Your task to perform on an android device: Empty the shopping cart on ebay. Add "acer nitro" to the cart on ebay, then select checkout. Image 0: 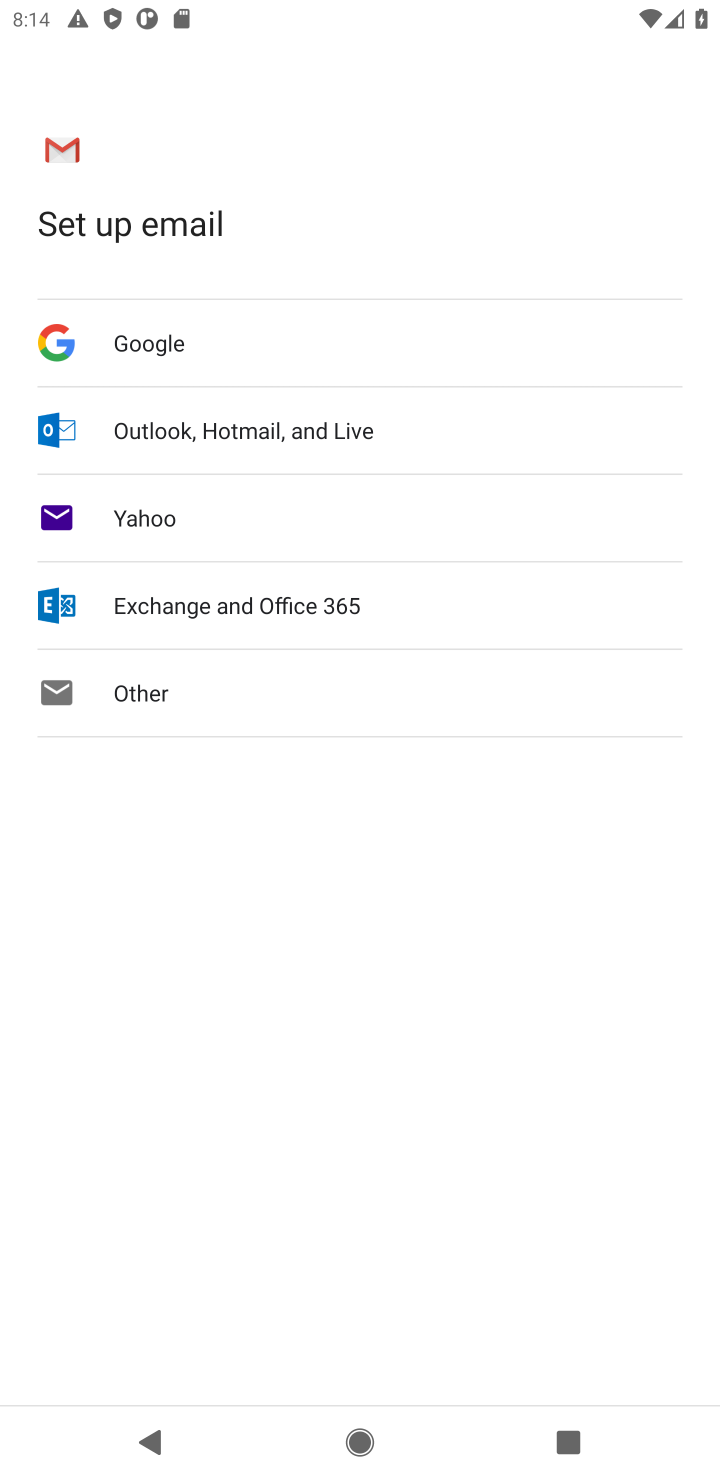
Step 0: press home button
Your task to perform on an android device: Empty the shopping cart on ebay. Add "acer nitro" to the cart on ebay, then select checkout. Image 1: 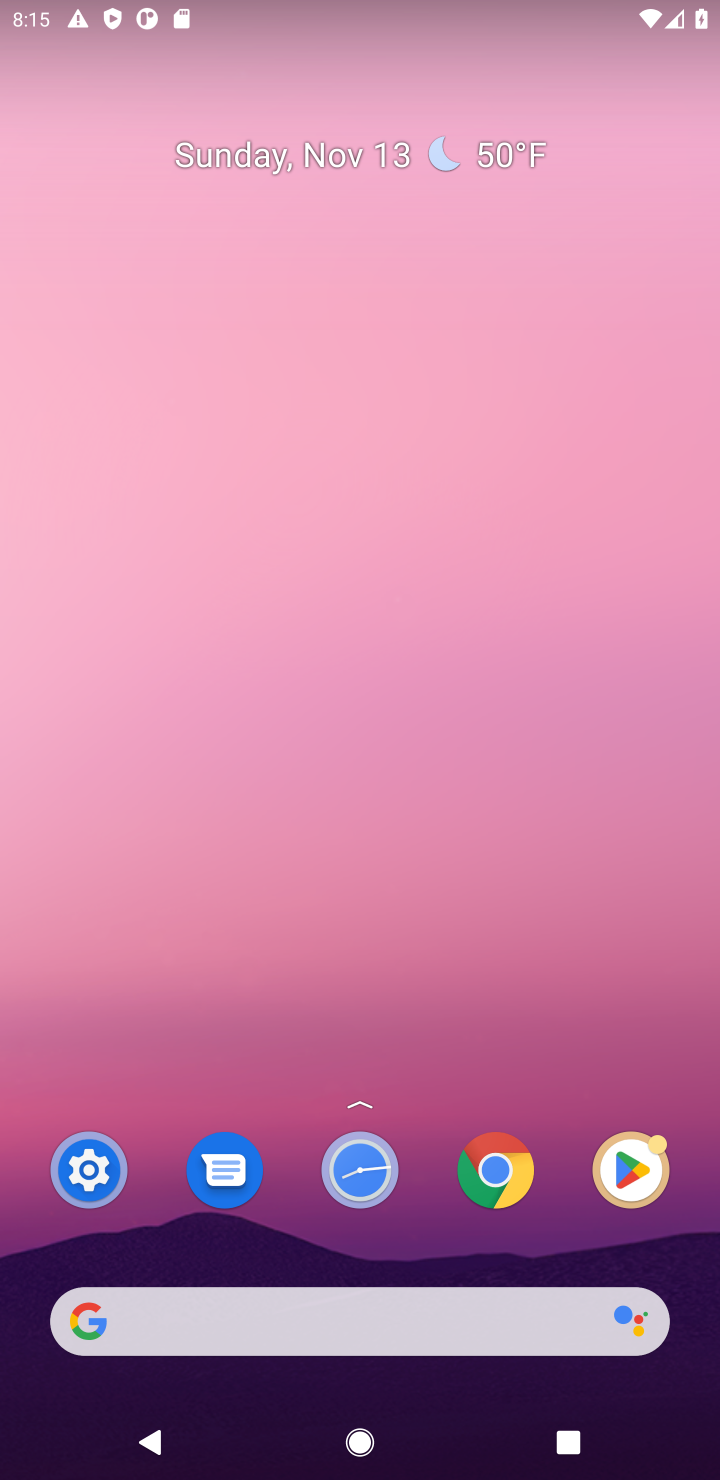
Step 1: click (279, 1341)
Your task to perform on an android device: Empty the shopping cart on ebay. Add "acer nitro" to the cart on ebay, then select checkout. Image 2: 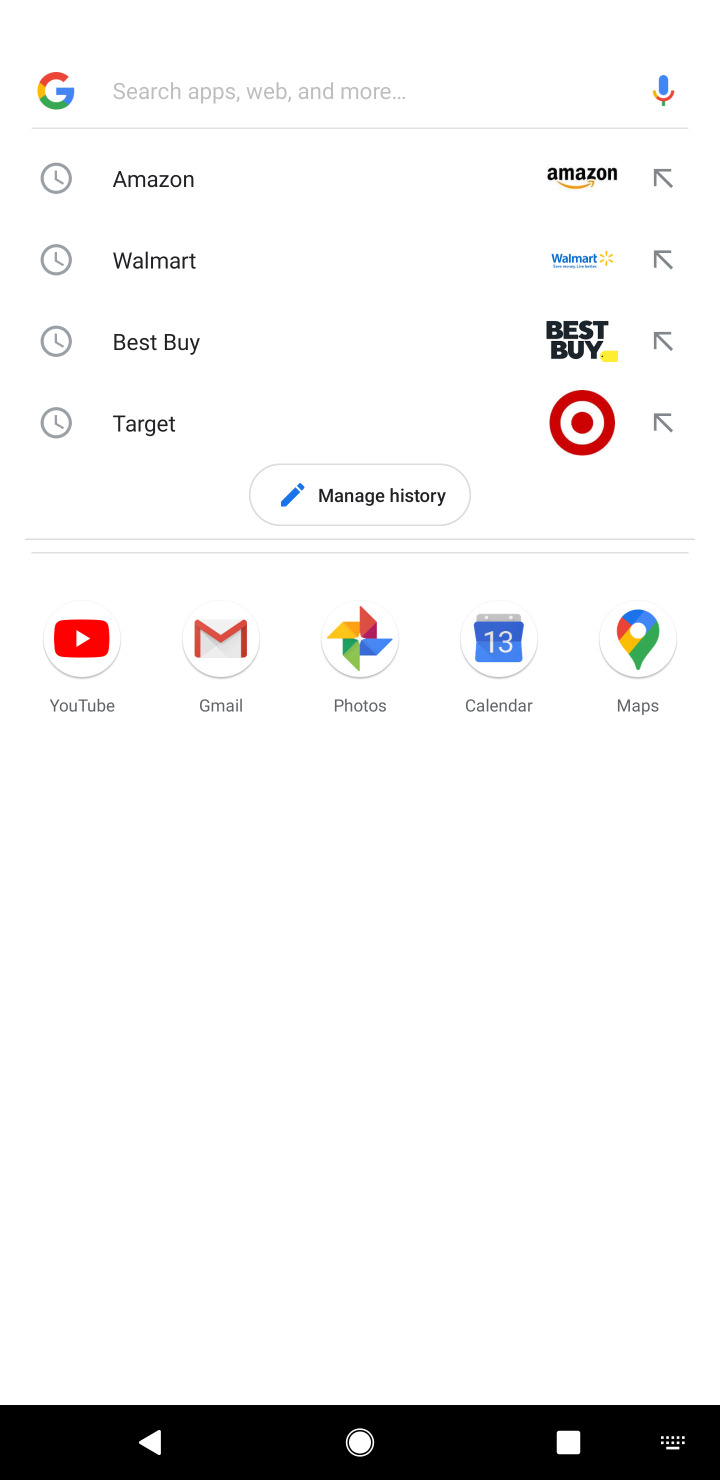
Step 2: type "ebay.com"
Your task to perform on an android device: Empty the shopping cart on ebay. Add "acer nitro" to the cart on ebay, then select checkout. Image 3: 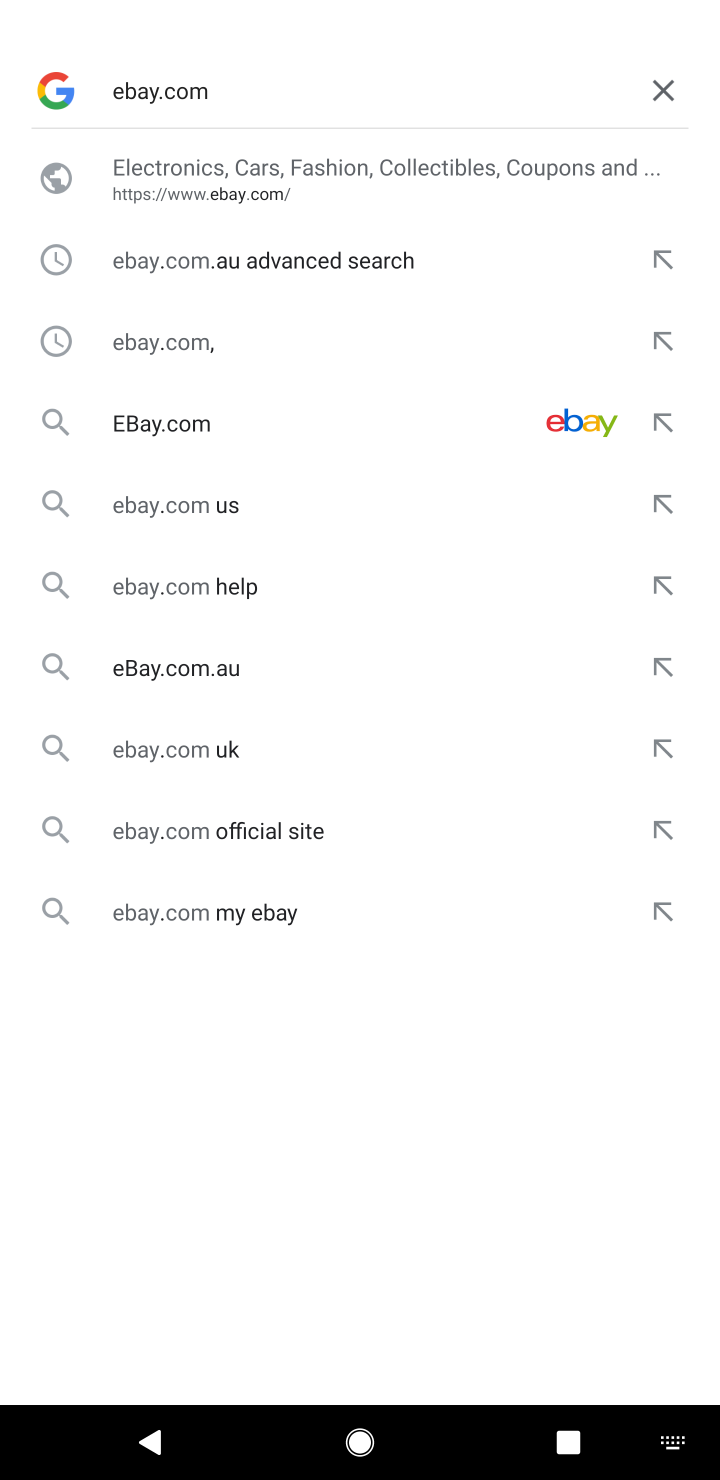
Step 3: click (248, 196)
Your task to perform on an android device: Empty the shopping cart on ebay. Add "acer nitro" to the cart on ebay, then select checkout. Image 4: 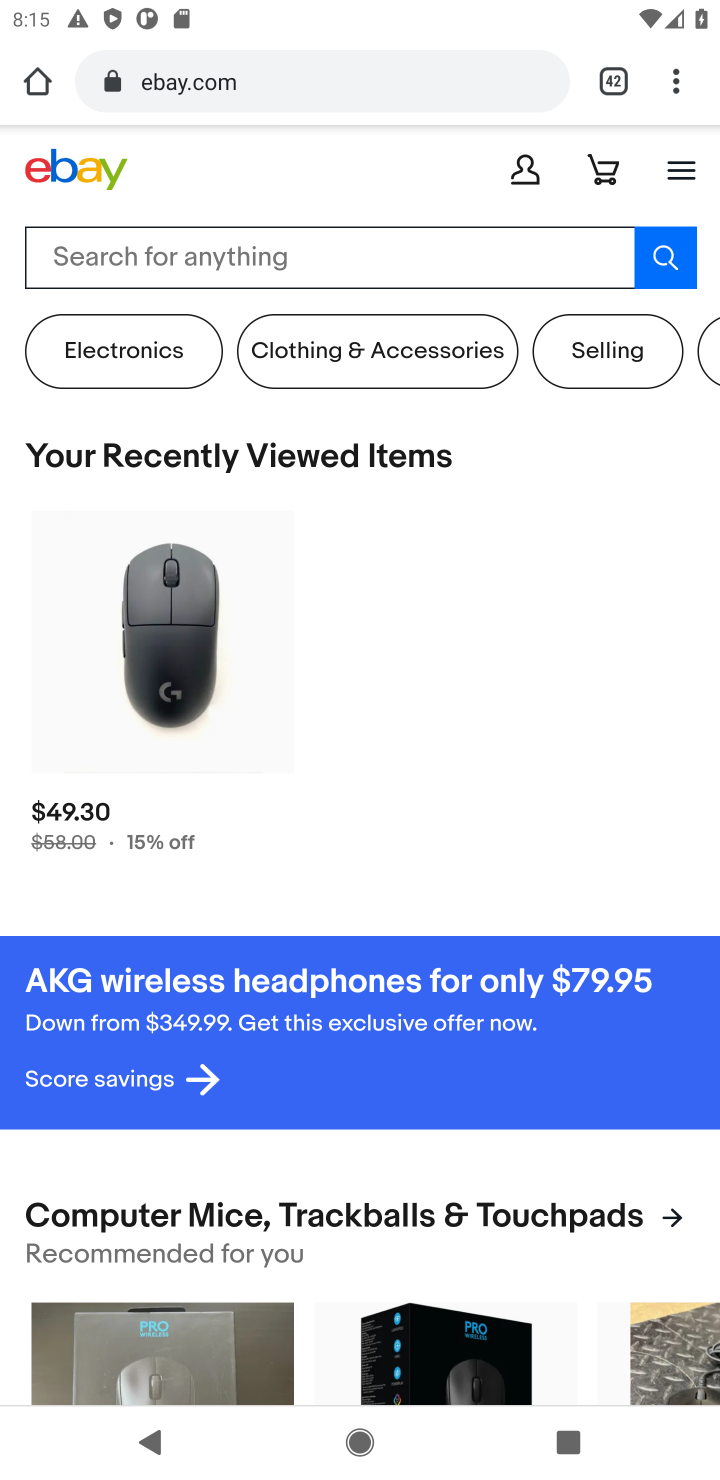
Step 4: task complete